Your task to perform on an android device: Open Chrome and go to settings Image 0: 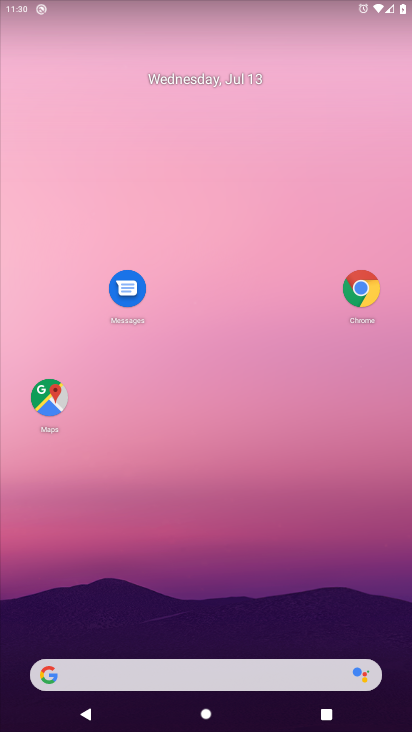
Step 0: click (379, 290)
Your task to perform on an android device: Open Chrome and go to settings Image 1: 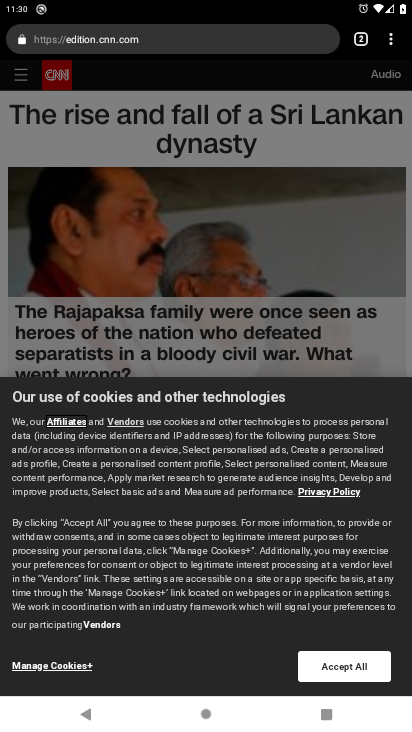
Step 1: click (389, 41)
Your task to perform on an android device: Open Chrome and go to settings Image 2: 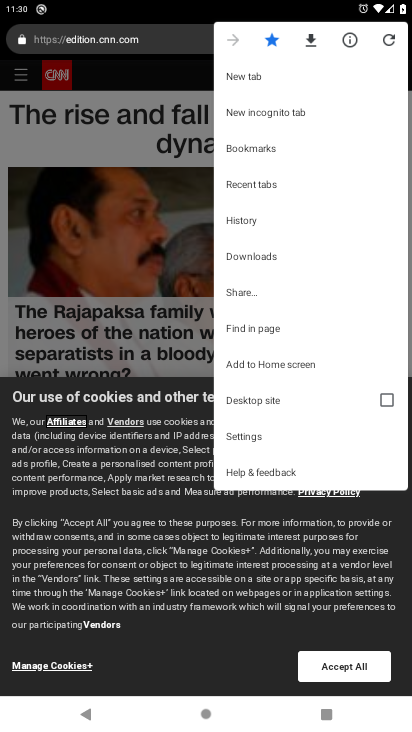
Step 2: click (256, 435)
Your task to perform on an android device: Open Chrome and go to settings Image 3: 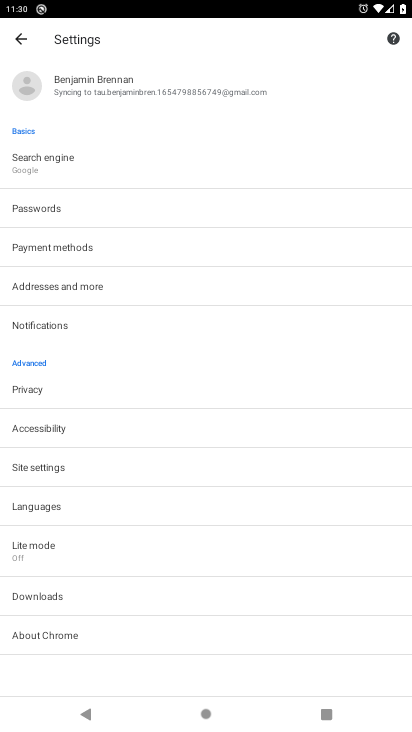
Step 3: task complete